Your task to perform on an android device: change timer sound Image 0: 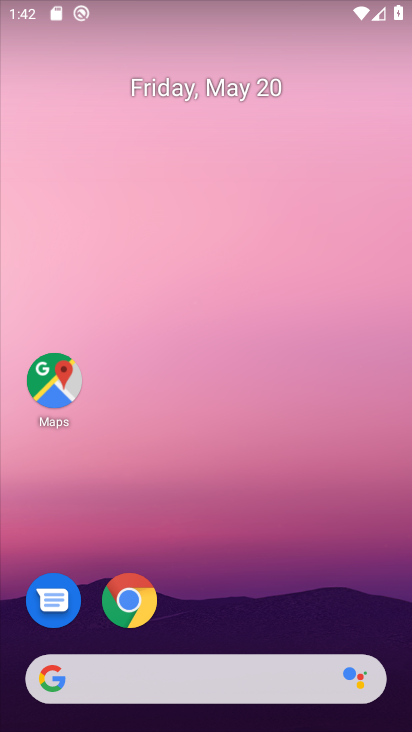
Step 0: drag from (221, 591) to (291, 107)
Your task to perform on an android device: change timer sound Image 1: 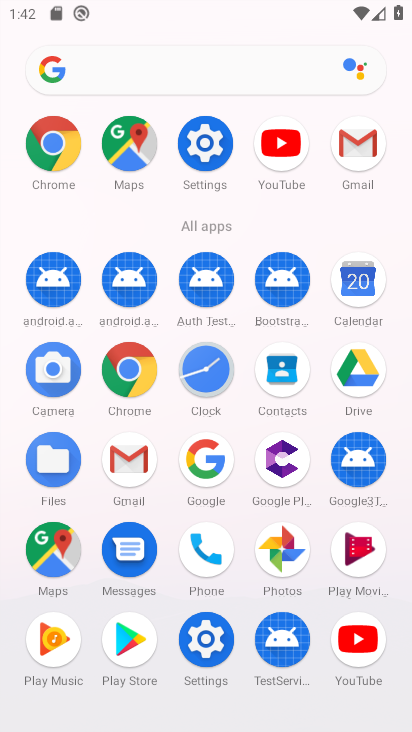
Step 1: click (205, 142)
Your task to perform on an android device: change timer sound Image 2: 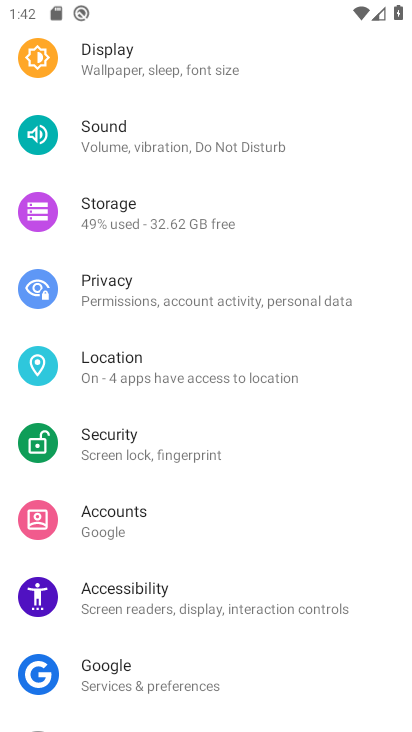
Step 2: press home button
Your task to perform on an android device: change timer sound Image 3: 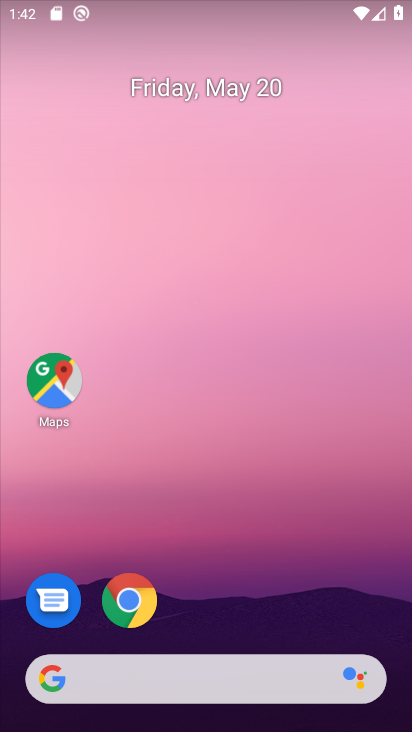
Step 3: drag from (238, 586) to (294, 94)
Your task to perform on an android device: change timer sound Image 4: 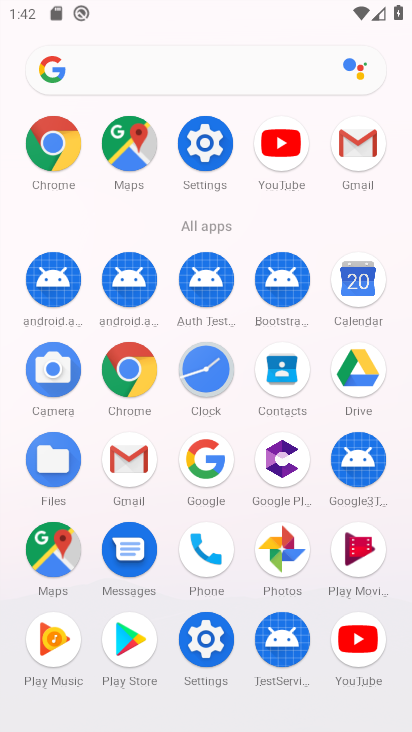
Step 4: click (207, 374)
Your task to perform on an android device: change timer sound Image 5: 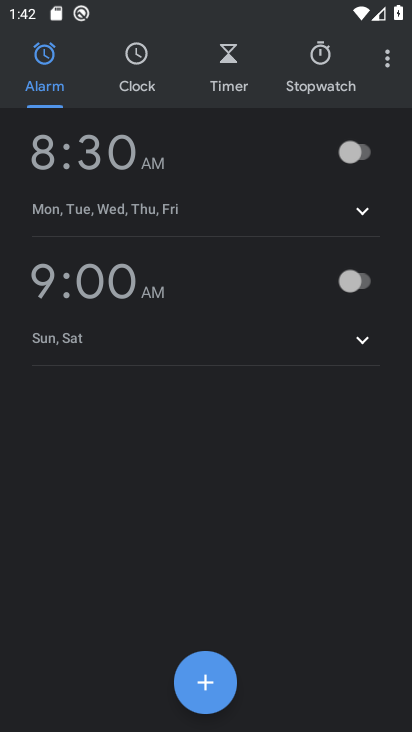
Step 5: click (371, 64)
Your task to perform on an android device: change timer sound Image 6: 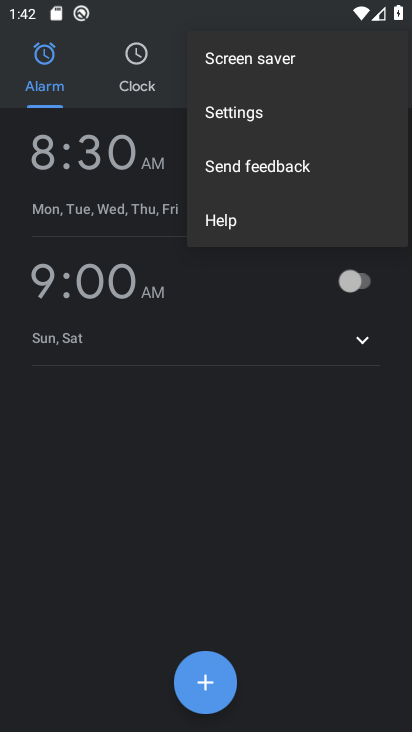
Step 6: click (244, 105)
Your task to perform on an android device: change timer sound Image 7: 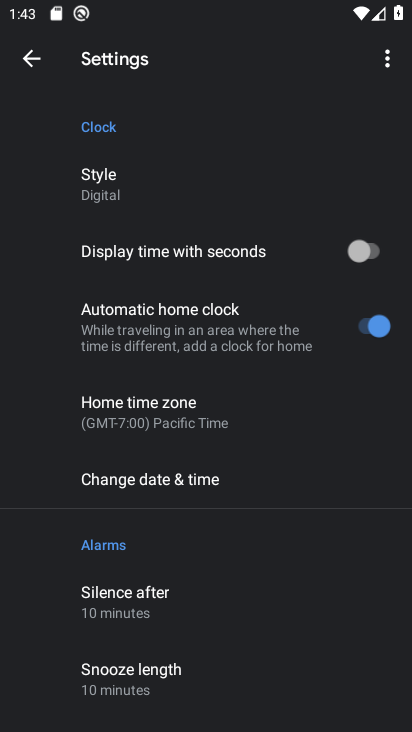
Step 7: drag from (154, 601) to (194, 290)
Your task to perform on an android device: change timer sound Image 8: 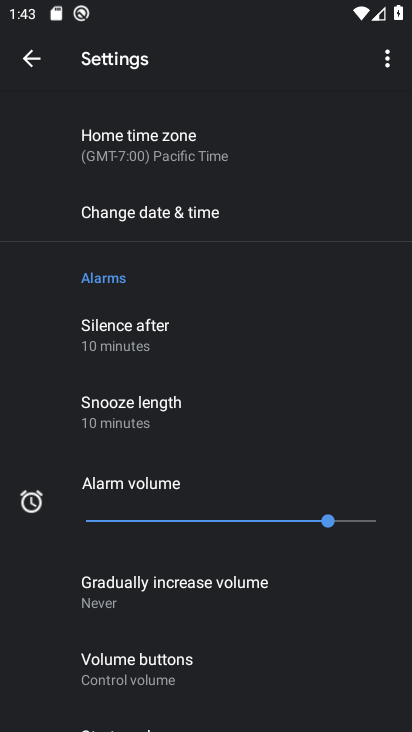
Step 8: drag from (172, 563) to (188, 383)
Your task to perform on an android device: change timer sound Image 9: 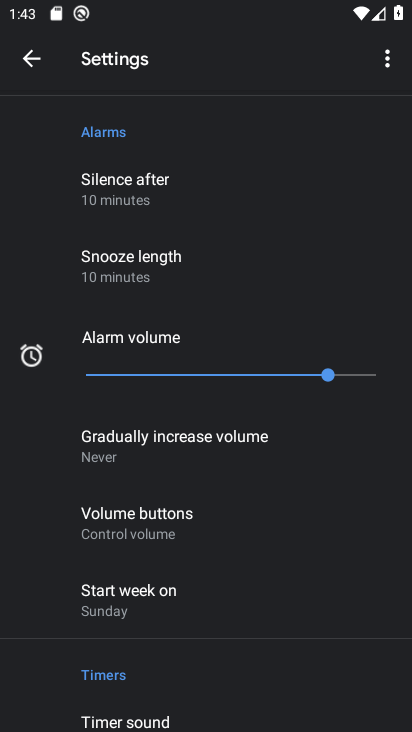
Step 9: drag from (173, 610) to (195, 391)
Your task to perform on an android device: change timer sound Image 10: 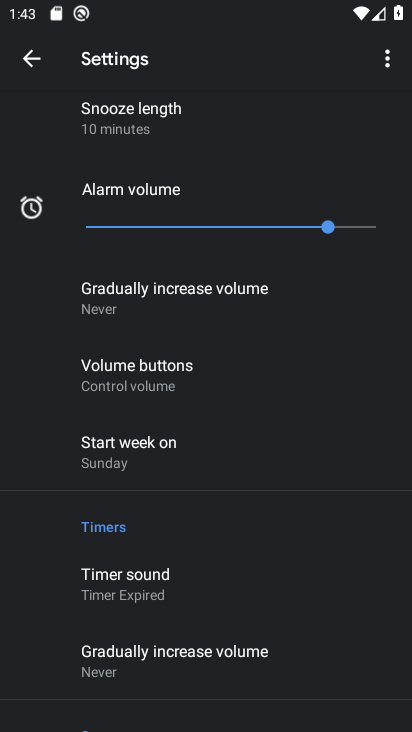
Step 10: click (170, 596)
Your task to perform on an android device: change timer sound Image 11: 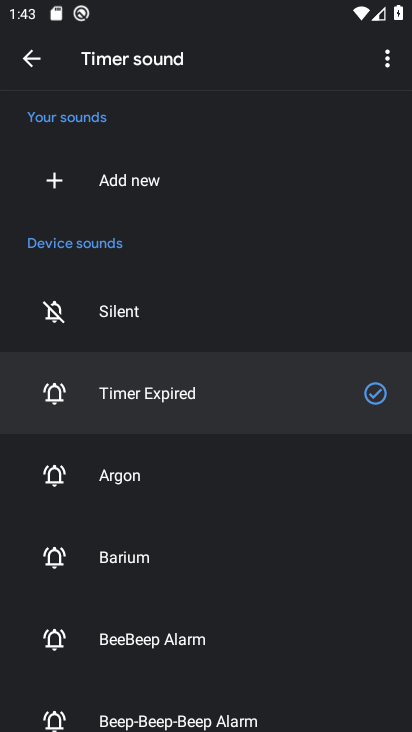
Step 11: click (109, 552)
Your task to perform on an android device: change timer sound Image 12: 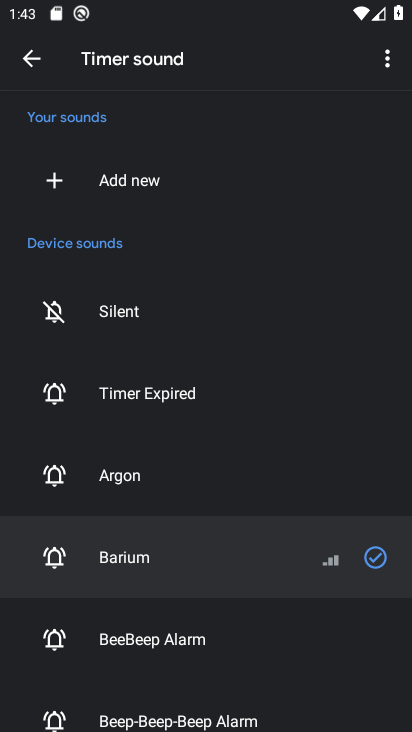
Step 12: task complete